Your task to perform on an android device: toggle wifi Image 0: 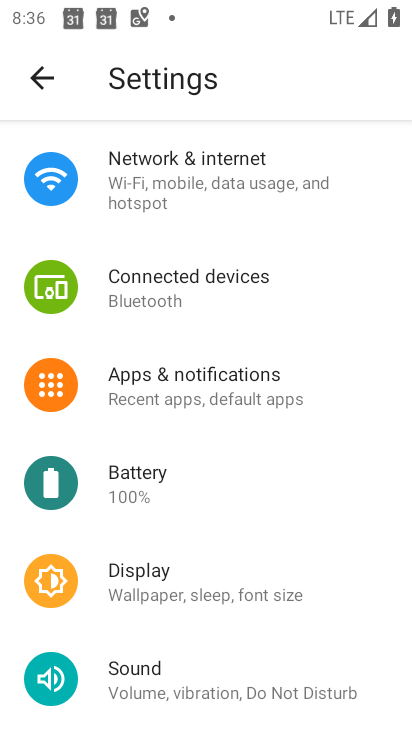
Step 0: click (190, 189)
Your task to perform on an android device: toggle wifi Image 1: 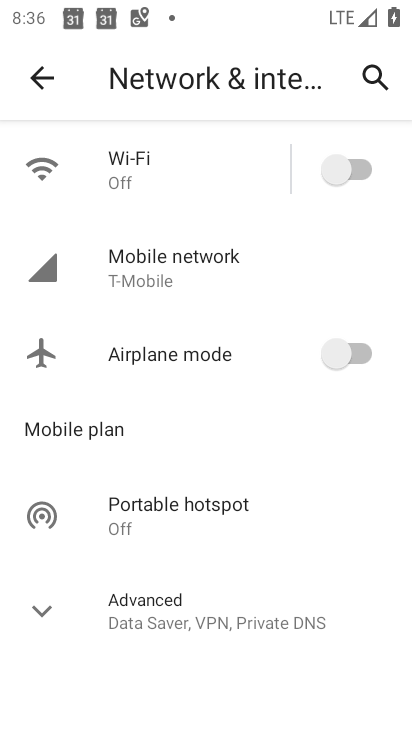
Step 1: click (345, 174)
Your task to perform on an android device: toggle wifi Image 2: 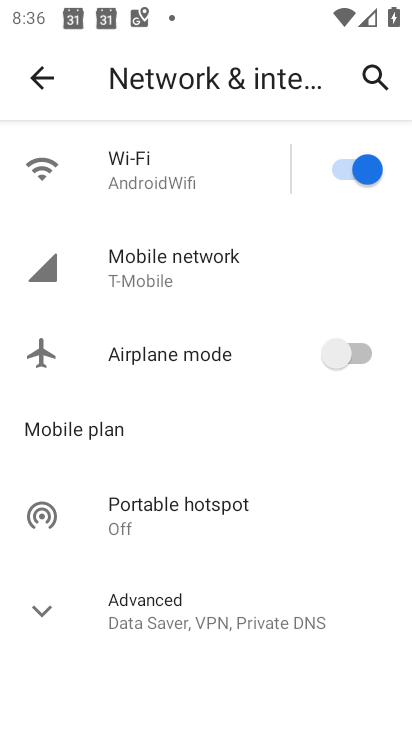
Step 2: task complete